Your task to perform on an android device: read, delete, or share a saved page in the chrome app Image 0: 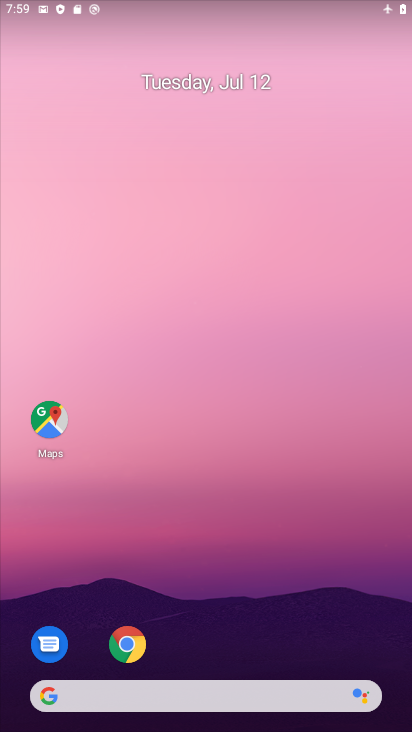
Step 0: click (126, 651)
Your task to perform on an android device: read, delete, or share a saved page in the chrome app Image 1: 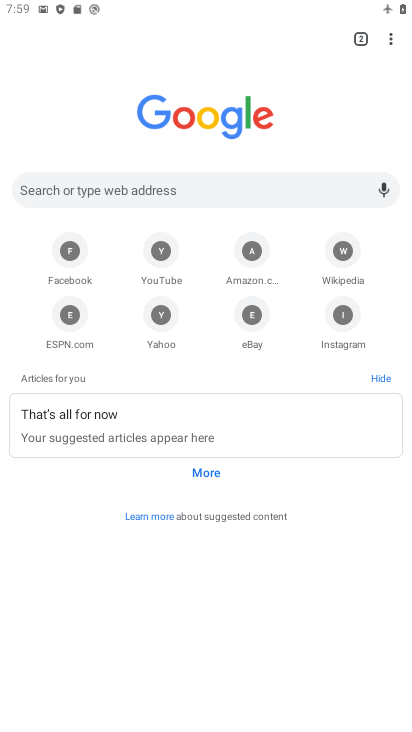
Step 1: click (389, 51)
Your task to perform on an android device: read, delete, or share a saved page in the chrome app Image 2: 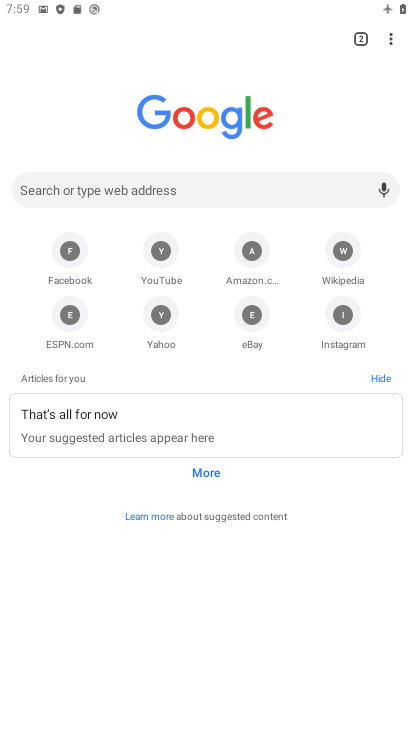
Step 2: click (386, 34)
Your task to perform on an android device: read, delete, or share a saved page in the chrome app Image 3: 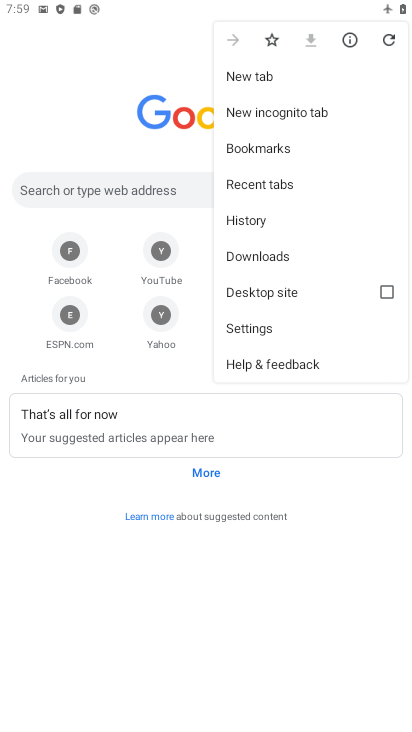
Step 3: click (270, 259)
Your task to perform on an android device: read, delete, or share a saved page in the chrome app Image 4: 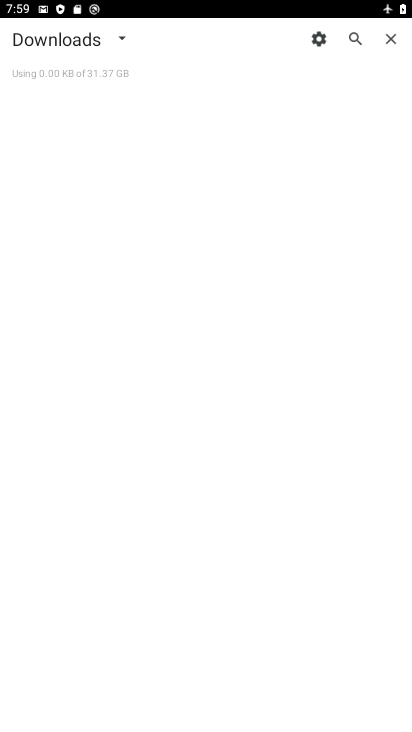
Step 4: click (119, 23)
Your task to perform on an android device: read, delete, or share a saved page in the chrome app Image 5: 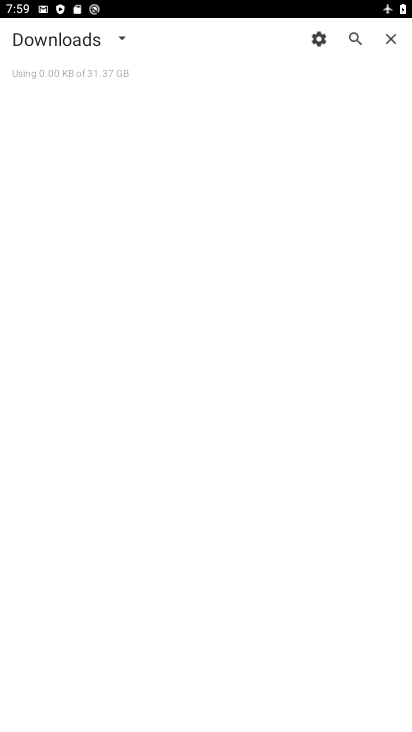
Step 5: click (124, 37)
Your task to perform on an android device: read, delete, or share a saved page in the chrome app Image 6: 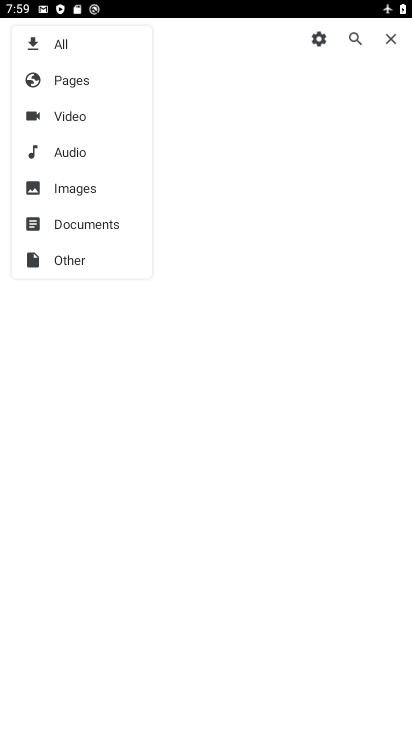
Step 6: click (93, 85)
Your task to perform on an android device: read, delete, or share a saved page in the chrome app Image 7: 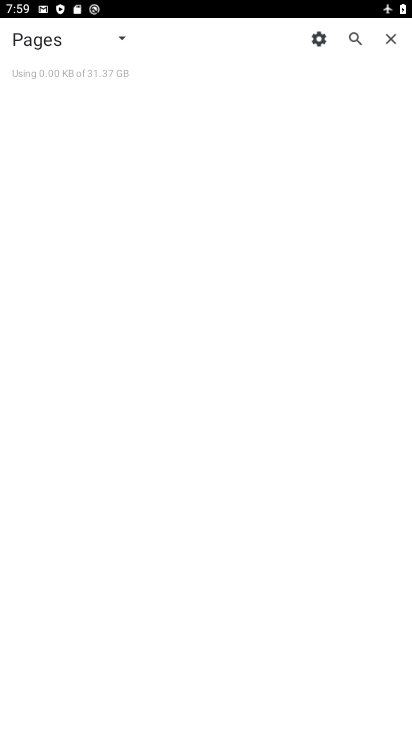
Step 7: task complete